Your task to perform on an android device: open sync settings in chrome Image 0: 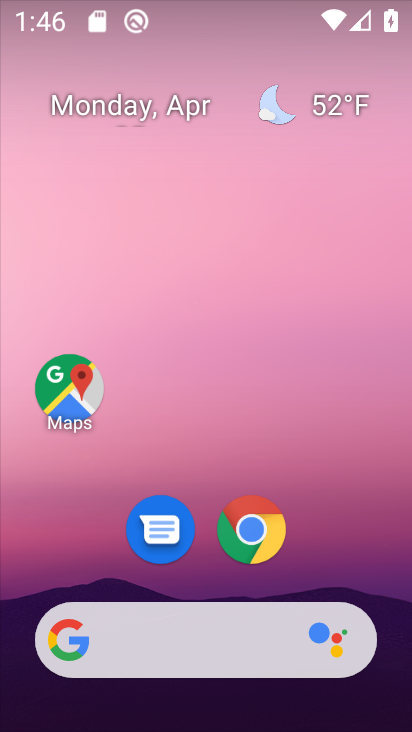
Step 0: drag from (369, 282) to (358, 241)
Your task to perform on an android device: open sync settings in chrome Image 1: 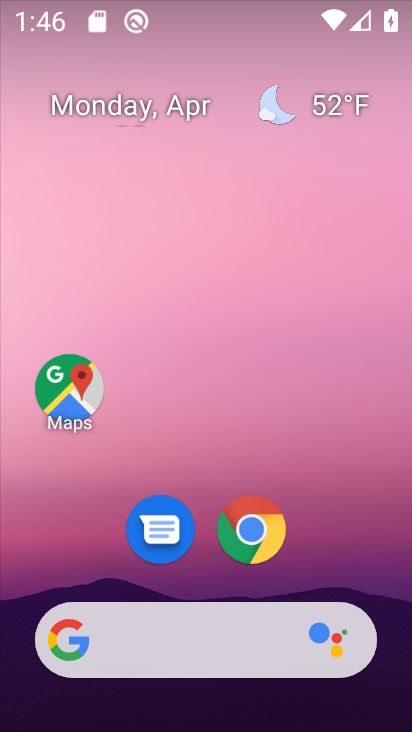
Step 1: click (254, 525)
Your task to perform on an android device: open sync settings in chrome Image 2: 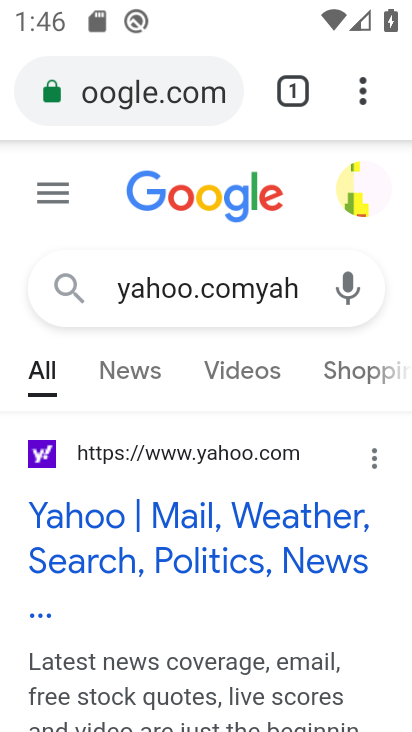
Step 2: click (362, 88)
Your task to perform on an android device: open sync settings in chrome Image 3: 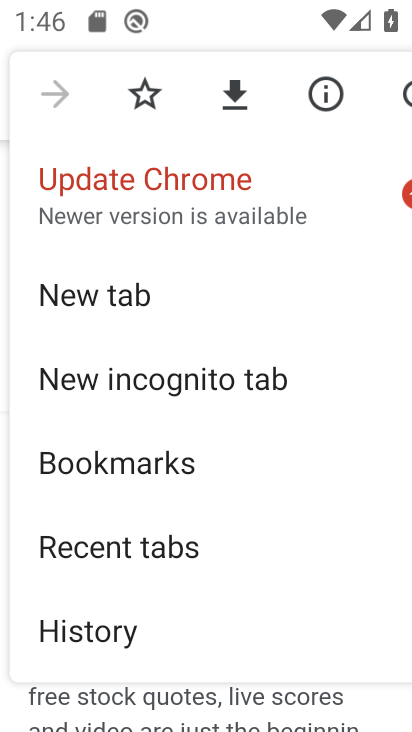
Step 3: drag from (232, 634) to (236, 343)
Your task to perform on an android device: open sync settings in chrome Image 4: 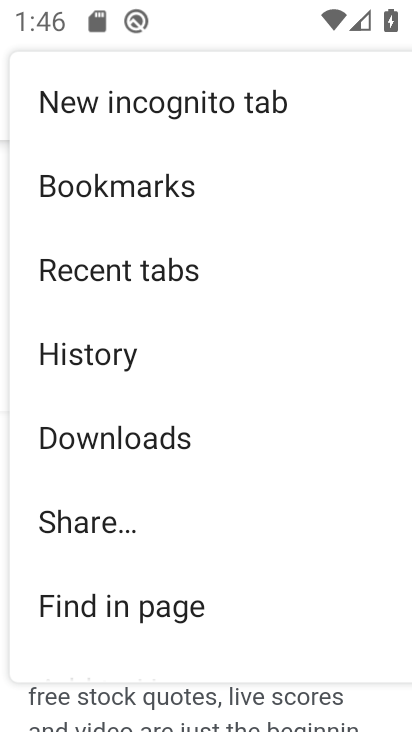
Step 4: drag from (276, 615) to (269, 295)
Your task to perform on an android device: open sync settings in chrome Image 5: 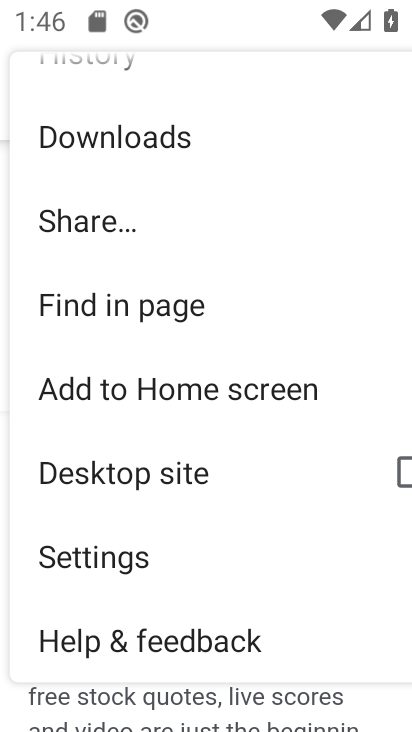
Step 5: click (107, 557)
Your task to perform on an android device: open sync settings in chrome Image 6: 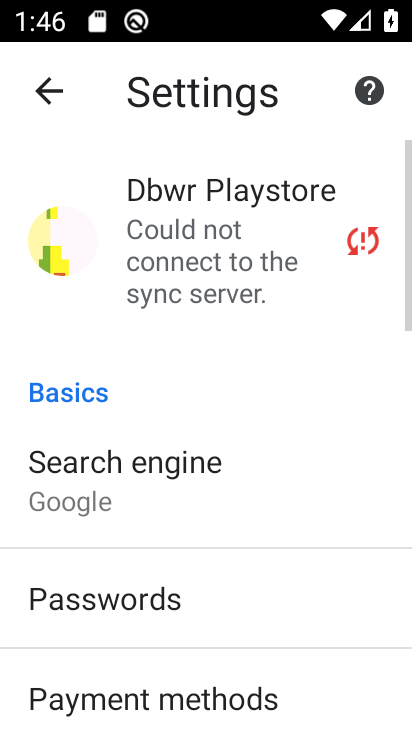
Step 6: drag from (303, 451) to (311, 325)
Your task to perform on an android device: open sync settings in chrome Image 7: 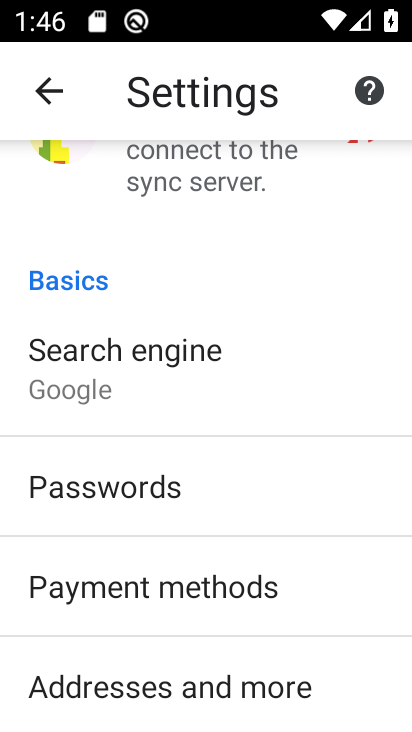
Step 7: drag from (351, 680) to (350, 354)
Your task to perform on an android device: open sync settings in chrome Image 8: 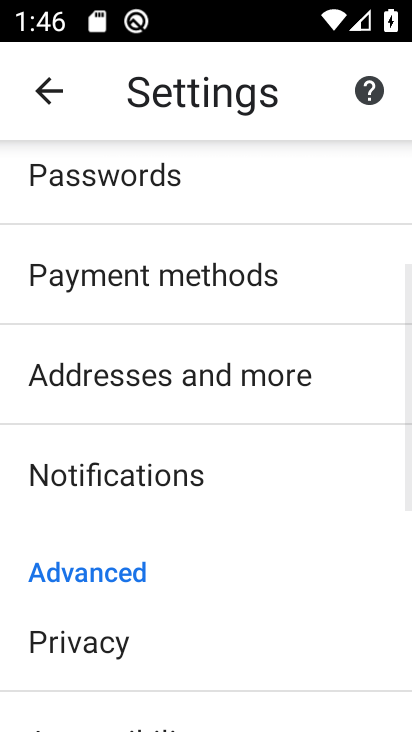
Step 8: click (72, 642)
Your task to perform on an android device: open sync settings in chrome Image 9: 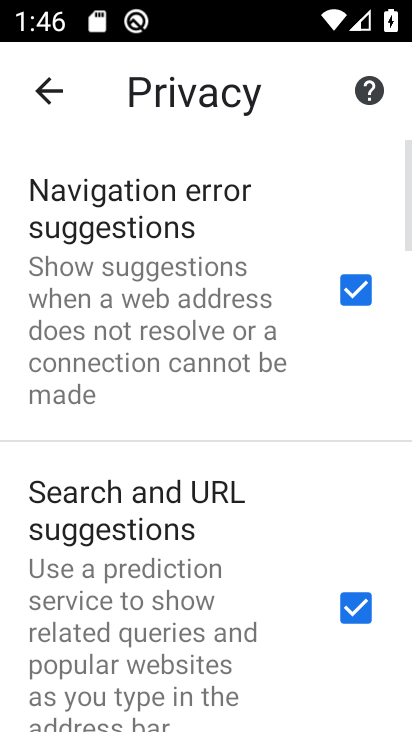
Step 9: task complete